Your task to perform on an android device: Show me popular games on the Play Store Image 0: 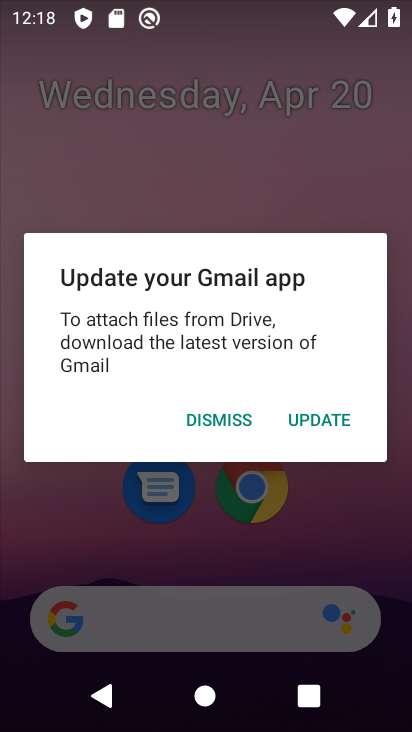
Step 0: press home button
Your task to perform on an android device: Show me popular games on the Play Store Image 1: 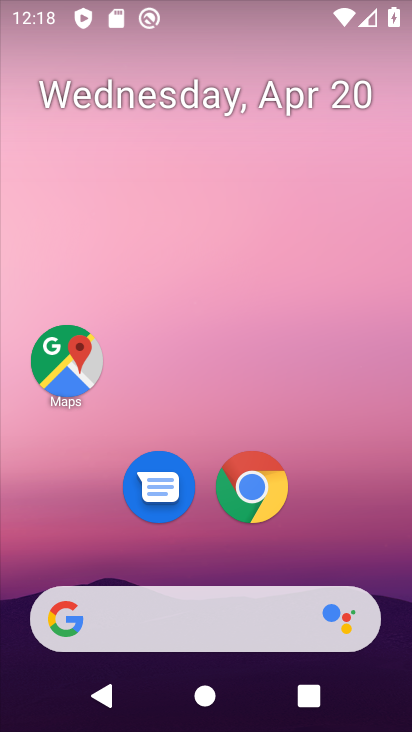
Step 1: drag from (376, 536) to (266, 36)
Your task to perform on an android device: Show me popular games on the Play Store Image 2: 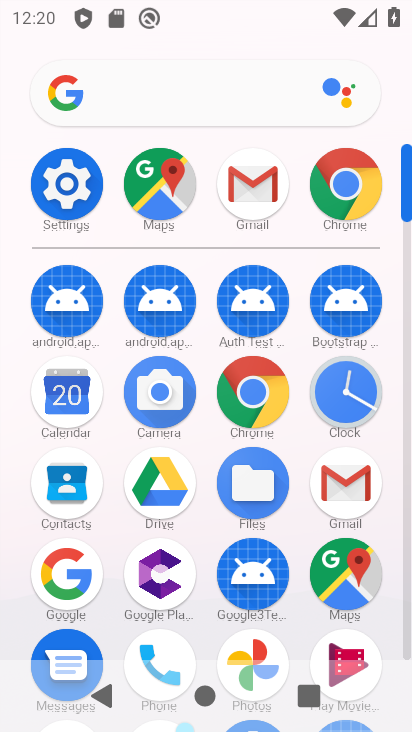
Step 2: click (407, 654)
Your task to perform on an android device: Show me popular games on the Play Store Image 3: 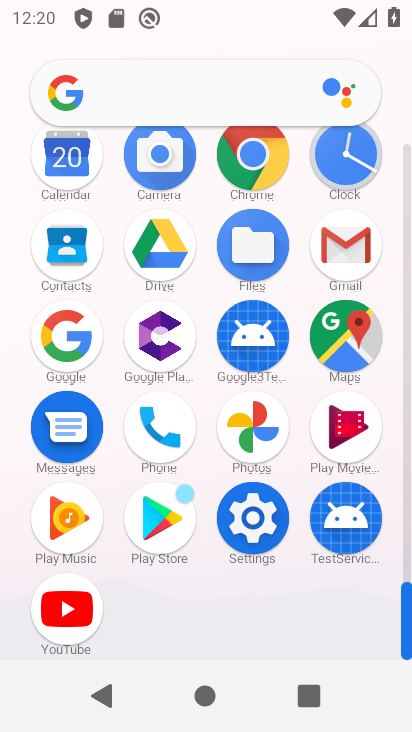
Step 3: click (174, 510)
Your task to perform on an android device: Show me popular games on the Play Store Image 4: 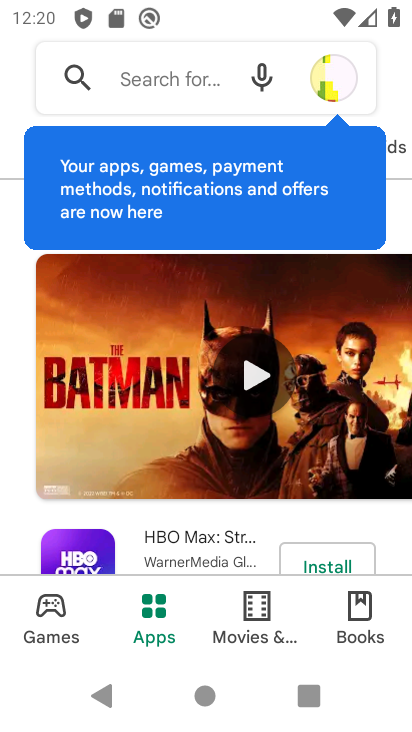
Step 4: click (52, 612)
Your task to perform on an android device: Show me popular games on the Play Store Image 5: 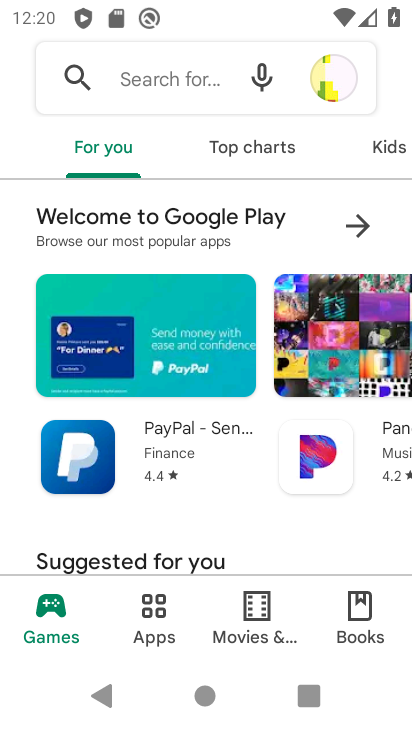
Step 5: task complete